Your task to perform on an android device: open sync settings in chrome Image 0: 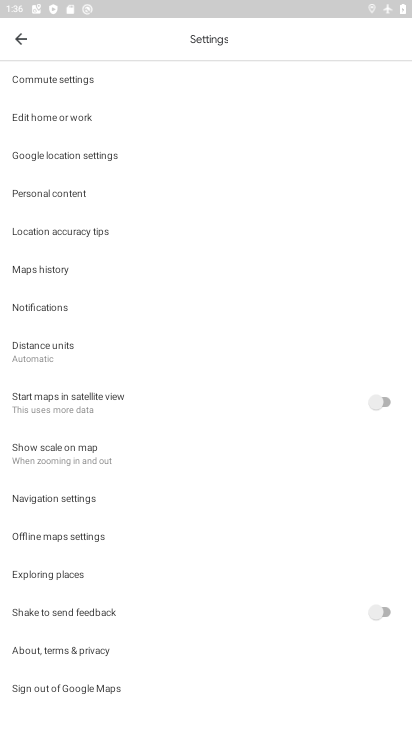
Step 0: press home button
Your task to perform on an android device: open sync settings in chrome Image 1: 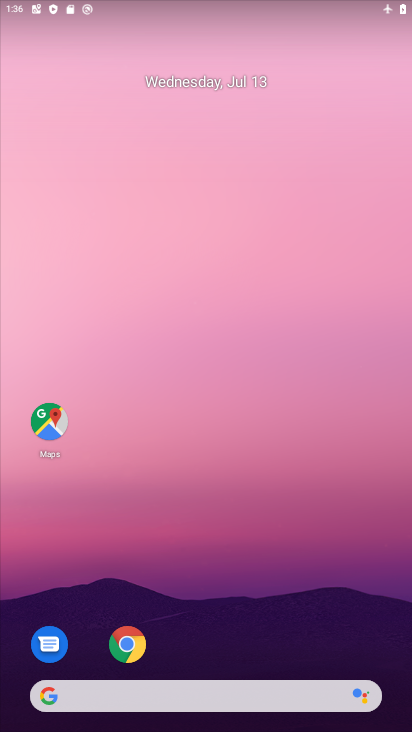
Step 1: drag from (310, 653) to (311, 135)
Your task to perform on an android device: open sync settings in chrome Image 2: 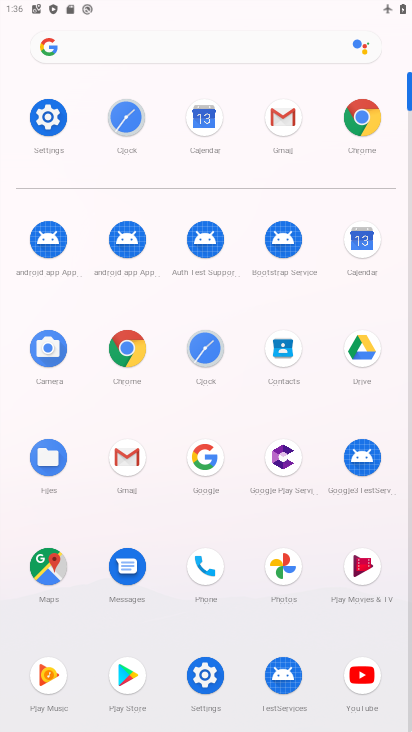
Step 2: click (361, 113)
Your task to perform on an android device: open sync settings in chrome Image 3: 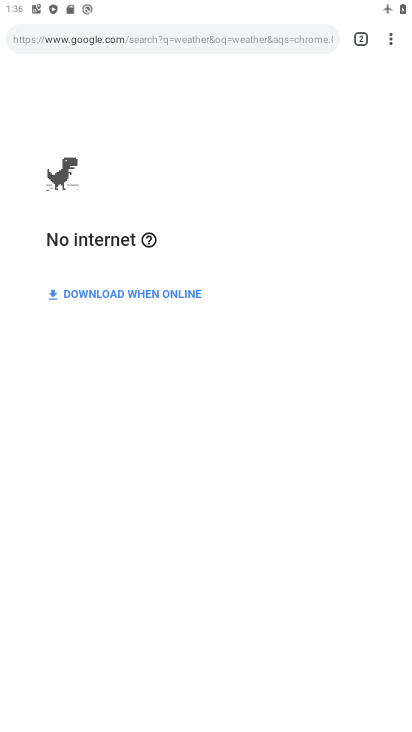
Step 3: drag from (393, 31) to (246, 437)
Your task to perform on an android device: open sync settings in chrome Image 4: 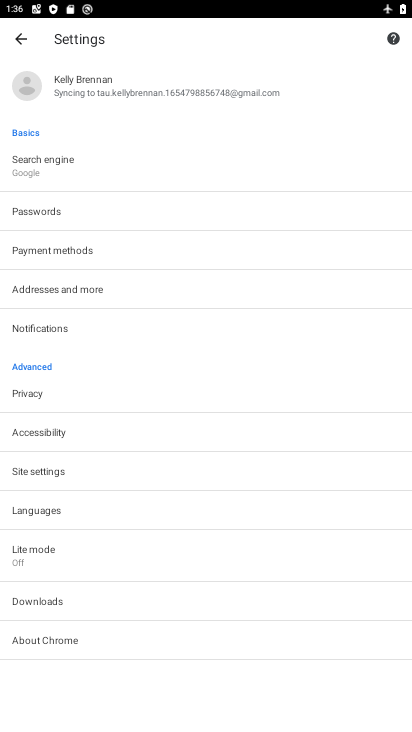
Step 4: click (133, 89)
Your task to perform on an android device: open sync settings in chrome Image 5: 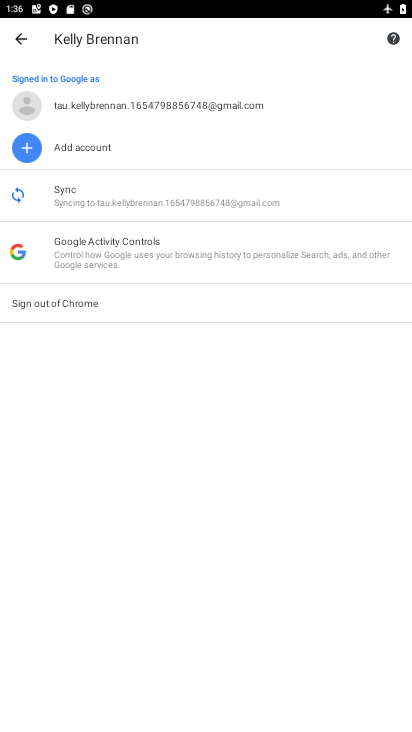
Step 5: click (121, 192)
Your task to perform on an android device: open sync settings in chrome Image 6: 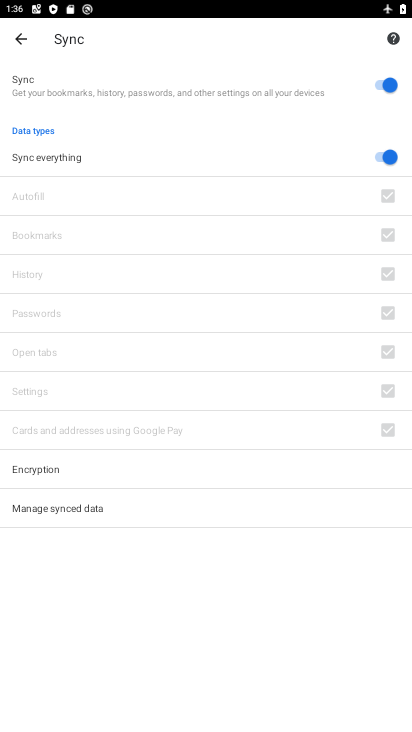
Step 6: task complete